Your task to perform on an android device: Forward the most recent email from tau.johnbrennan.1654798856748@gmail.com to: tau.tyrannosaubr.1654798856749@gmail.com. Image 0: 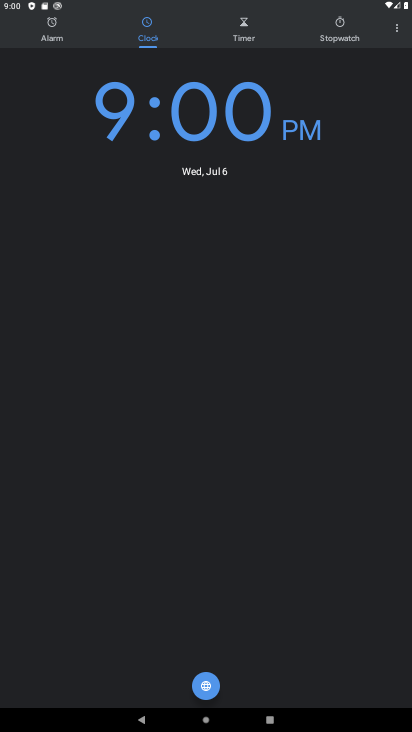
Step 0: press home button
Your task to perform on an android device: Forward the most recent email from tau.johnbrennan.1654798856748@gmail.com to: tau.tyrannosaubr.1654798856749@gmail.com. Image 1: 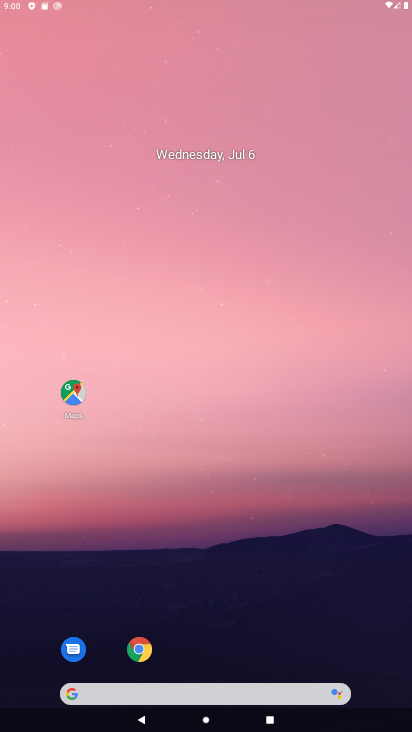
Step 1: drag from (320, 600) to (303, 74)
Your task to perform on an android device: Forward the most recent email from tau.johnbrennan.1654798856748@gmail.com to: tau.tyrannosaubr.1654798856749@gmail.com. Image 2: 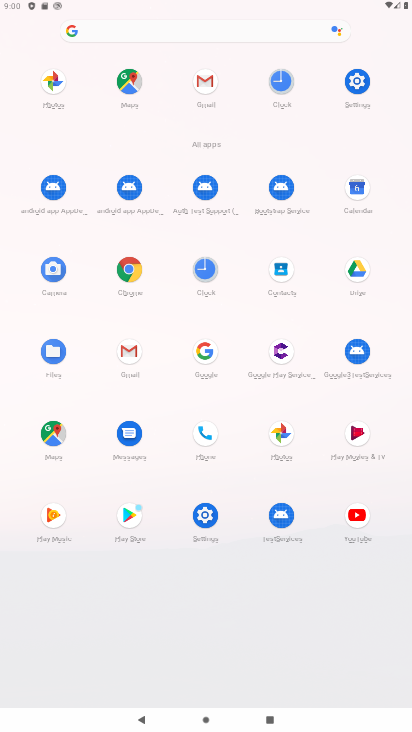
Step 2: click (208, 101)
Your task to perform on an android device: Forward the most recent email from tau.johnbrennan.1654798856748@gmail.com to: tau.tyrannosaubr.1654798856749@gmail.com. Image 3: 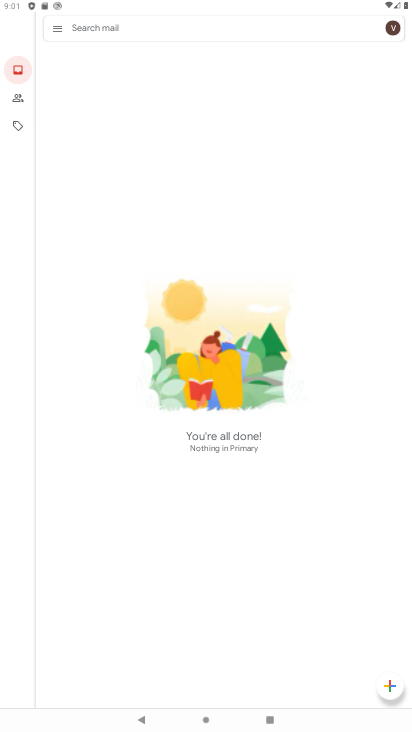
Step 3: task complete